Your task to perform on an android device: empty trash in the gmail app Image 0: 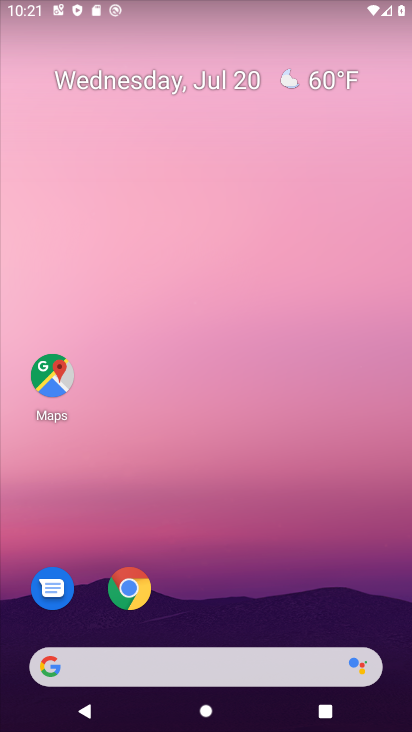
Step 0: drag from (235, 600) to (233, 118)
Your task to perform on an android device: empty trash in the gmail app Image 1: 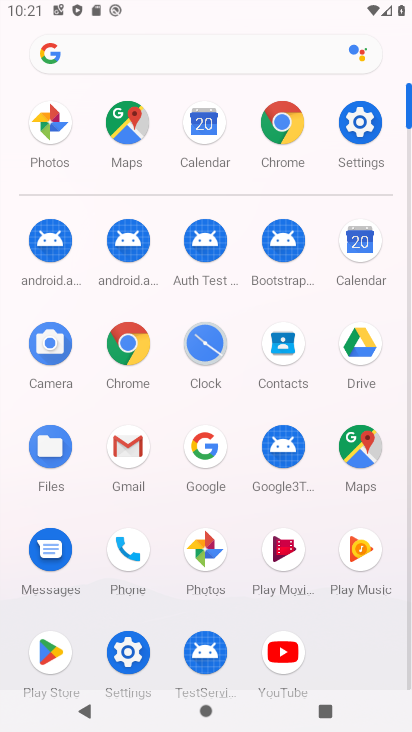
Step 1: click (129, 459)
Your task to perform on an android device: empty trash in the gmail app Image 2: 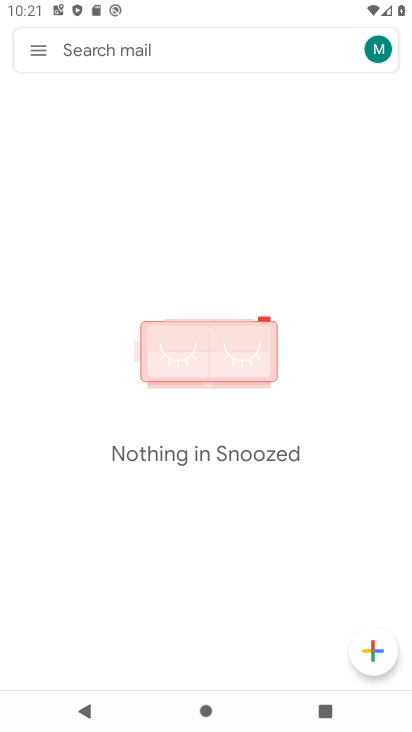
Step 2: click (40, 43)
Your task to perform on an android device: empty trash in the gmail app Image 3: 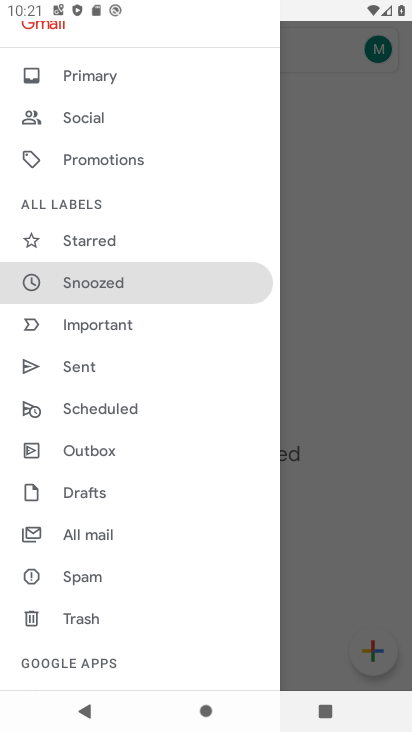
Step 3: click (77, 623)
Your task to perform on an android device: empty trash in the gmail app Image 4: 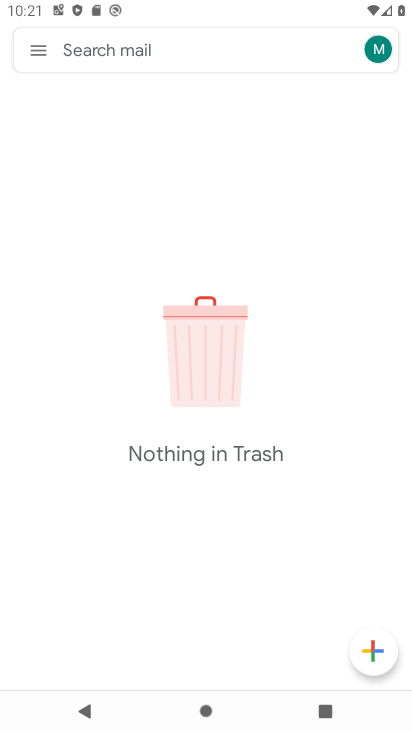
Step 4: task complete